Your task to perform on an android device: toggle notifications settings in the gmail app Image 0: 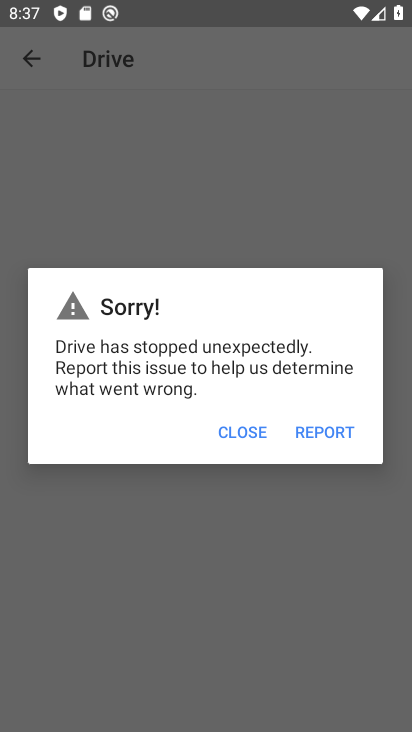
Step 0: press home button
Your task to perform on an android device: toggle notifications settings in the gmail app Image 1: 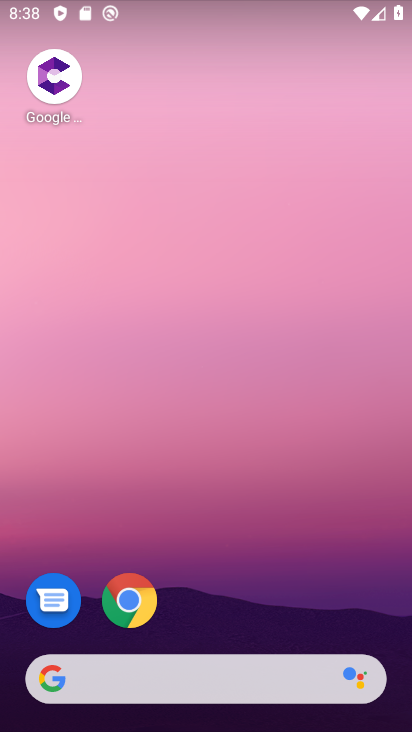
Step 1: drag from (212, 530) to (254, 45)
Your task to perform on an android device: toggle notifications settings in the gmail app Image 2: 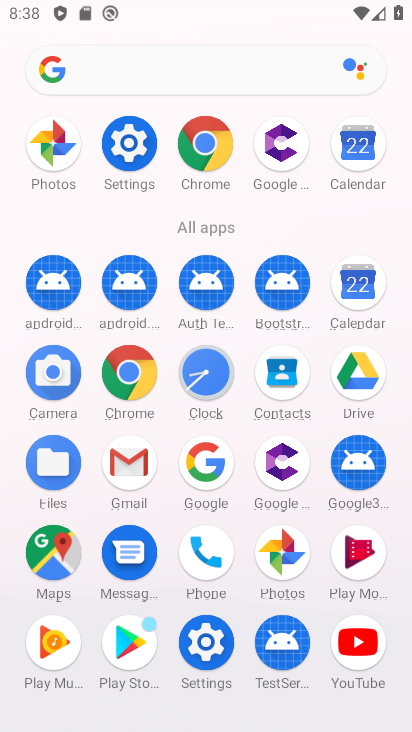
Step 2: click (138, 476)
Your task to perform on an android device: toggle notifications settings in the gmail app Image 3: 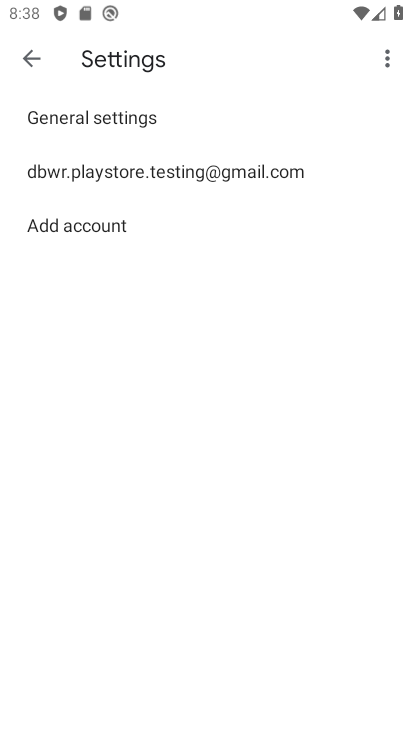
Step 3: click (129, 114)
Your task to perform on an android device: toggle notifications settings in the gmail app Image 4: 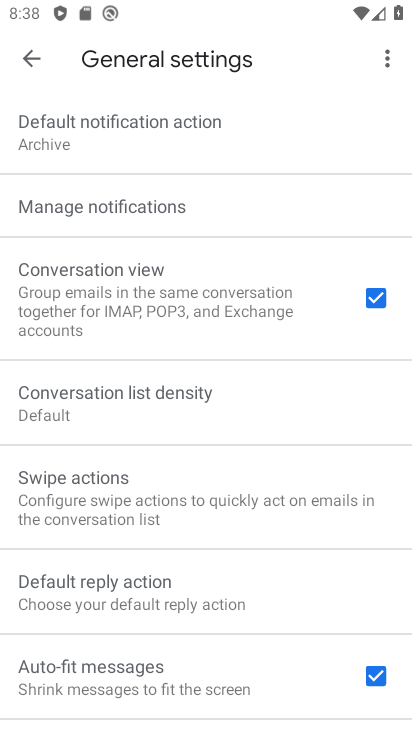
Step 4: click (149, 202)
Your task to perform on an android device: toggle notifications settings in the gmail app Image 5: 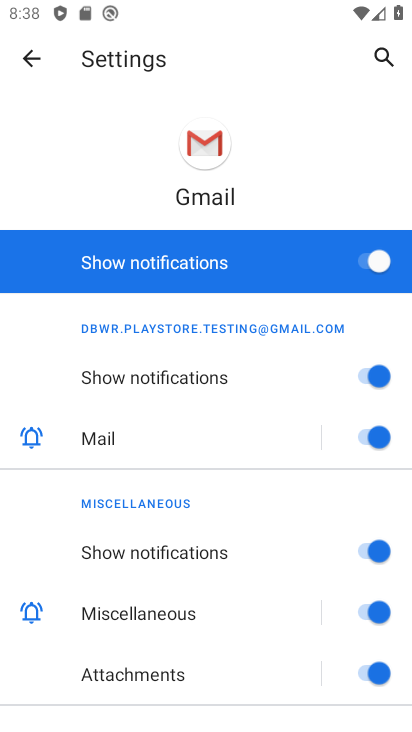
Step 5: click (366, 266)
Your task to perform on an android device: toggle notifications settings in the gmail app Image 6: 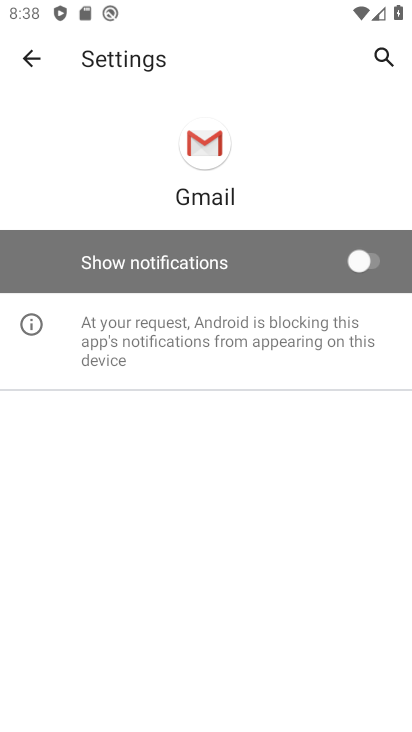
Step 6: task complete